Your task to perform on an android device: see tabs open on other devices in the chrome app Image 0: 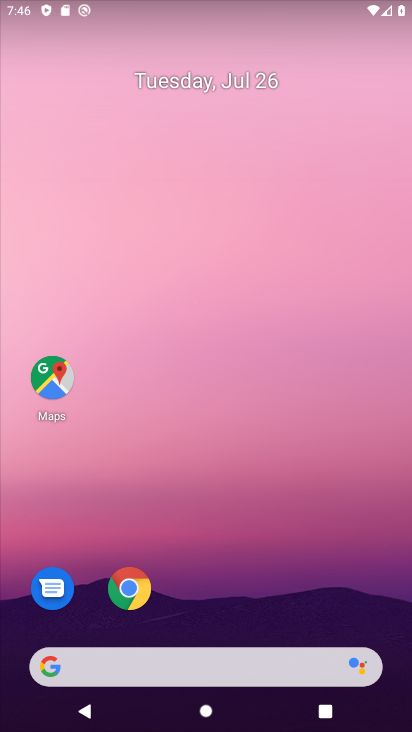
Step 0: drag from (325, 583) to (147, 132)
Your task to perform on an android device: see tabs open on other devices in the chrome app Image 1: 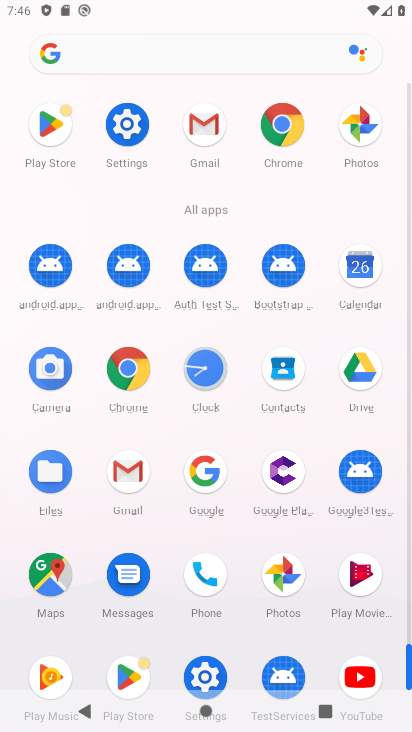
Step 1: click (128, 372)
Your task to perform on an android device: see tabs open on other devices in the chrome app Image 2: 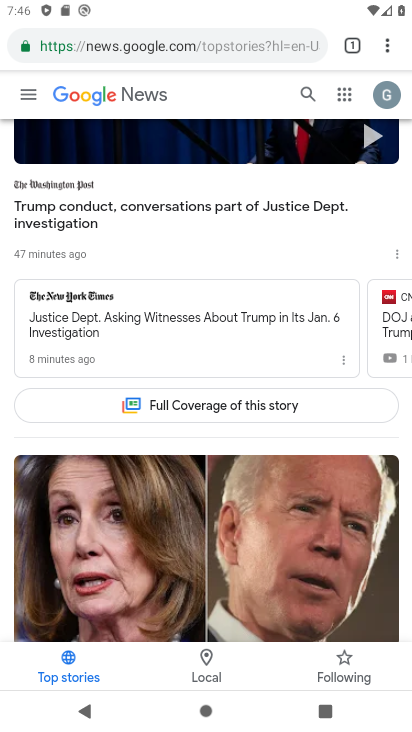
Step 2: task complete